Your task to perform on an android device: Open Youtube and go to the subscriptions tab Image 0: 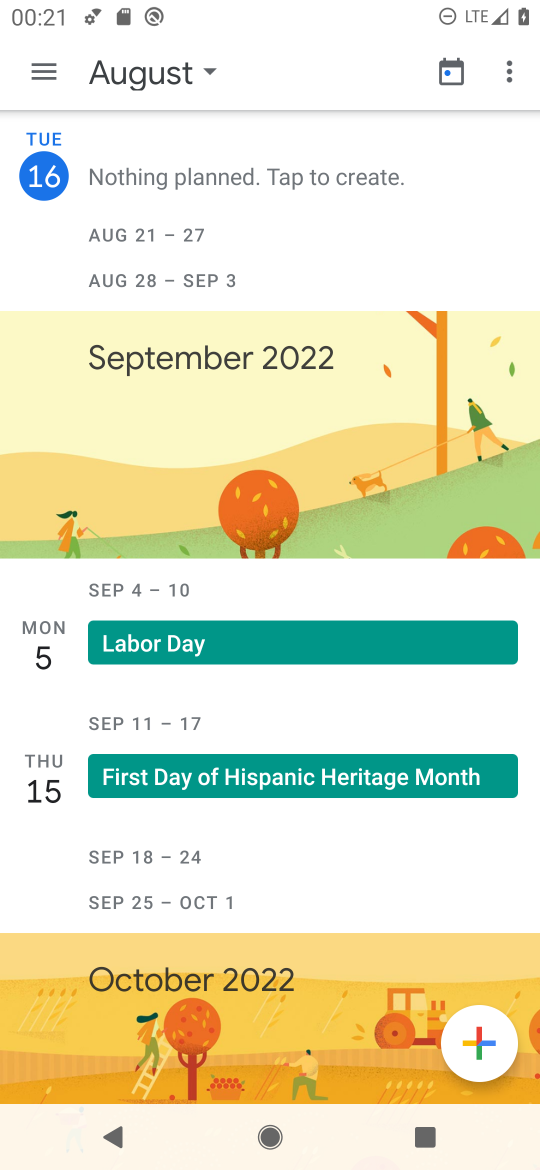
Step 0: press home button
Your task to perform on an android device: Open Youtube and go to the subscriptions tab Image 1: 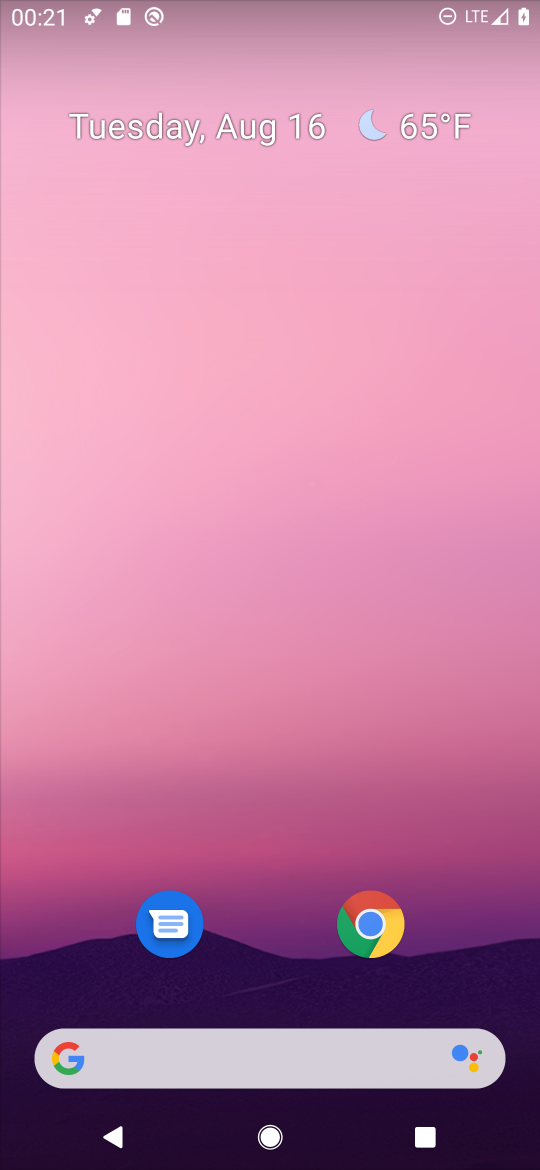
Step 1: drag from (478, 918) to (374, 66)
Your task to perform on an android device: Open Youtube and go to the subscriptions tab Image 2: 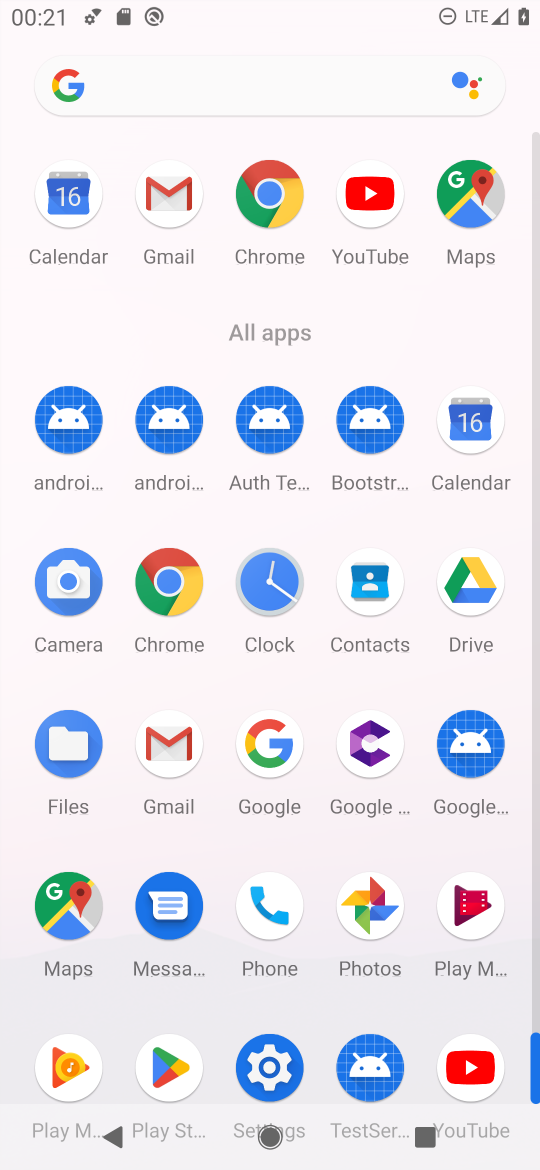
Step 2: click (369, 191)
Your task to perform on an android device: Open Youtube and go to the subscriptions tab Image 3: 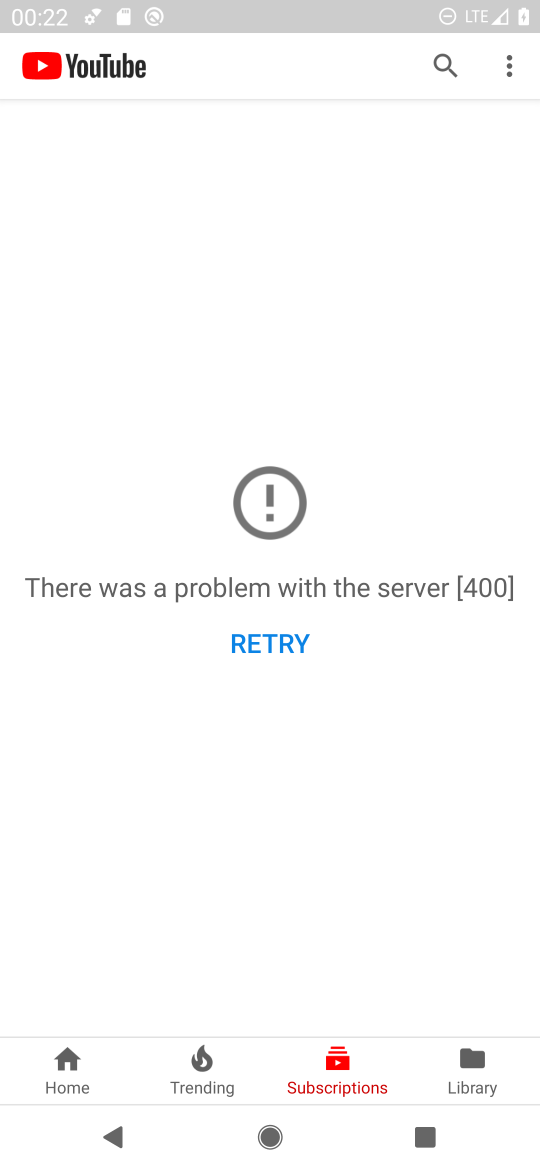
Step 3: task complete